Your task to perform on an android device: check google app version Image 0: 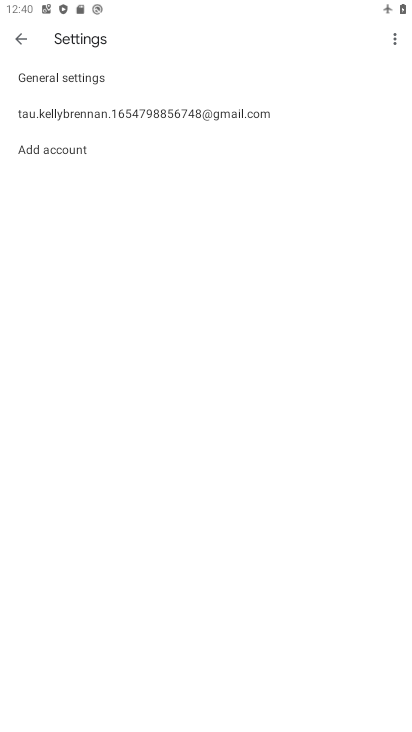
Step 0: press home button
Your task to perform on an android device: check google app version Image 1: 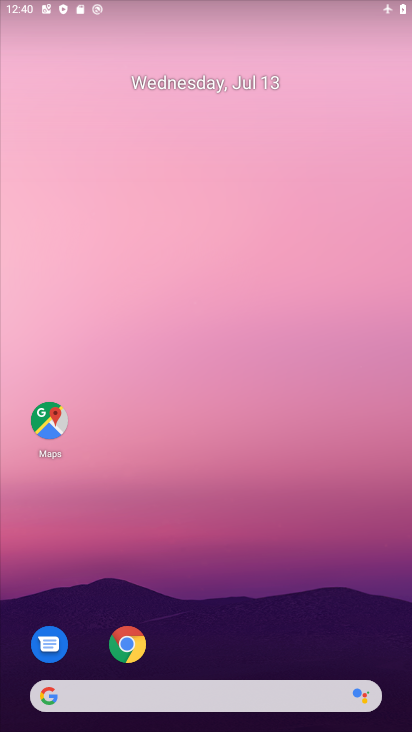
Step 1: drag from (302, 651) to (226, 177)
Your task to perform on an android device: check google app version Image 2: 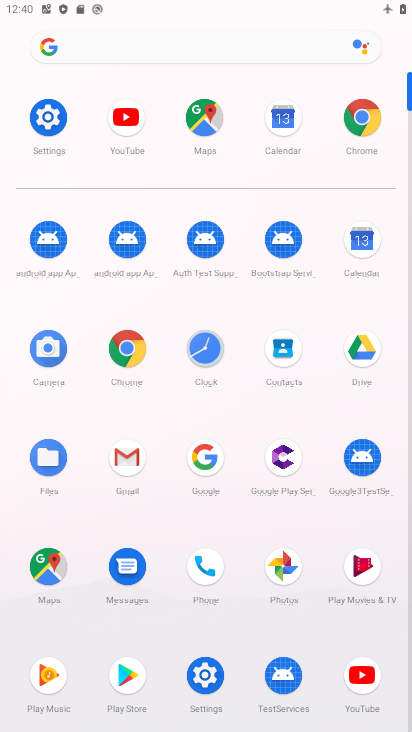
Step 2: click (201, 464)
Your task to perform on an android device: check google app version Image 3: 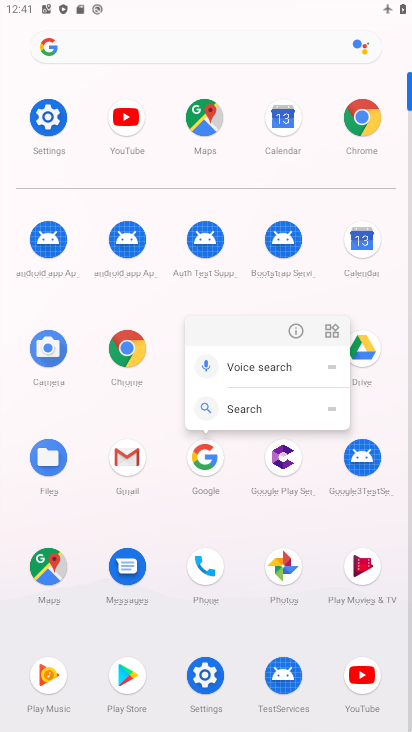
Step 3: click (296, 329)
Your task to perform on an android device: check google app version Image 4: 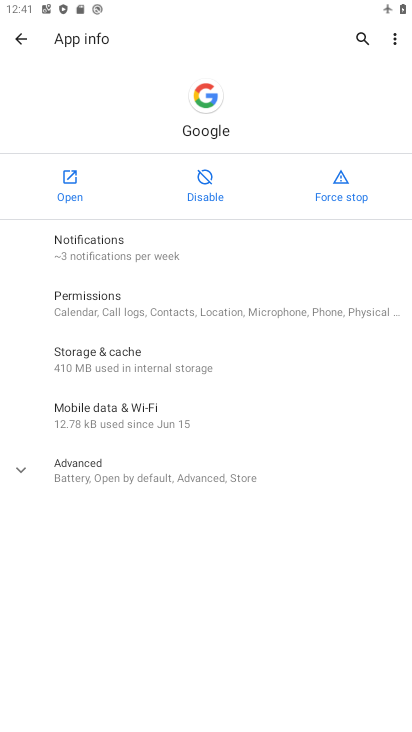
Step 4: click (230, 481)
Your task to perform on an android device: check google app version Image 5: 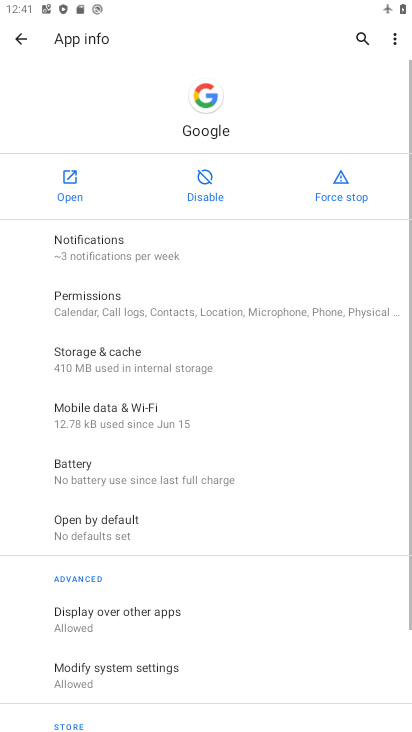
Step 5: task complete